Your task to perform on an android device: show emergency info Image 0: 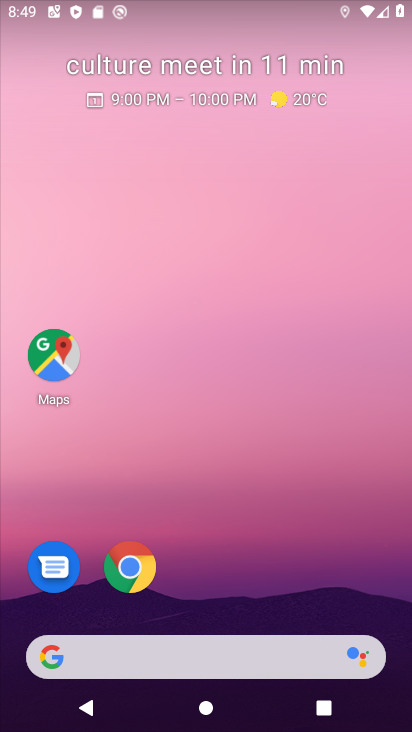
Step 0: drag from (191, 609) to (219, 1)
Your task to perform on an android device: show emergency info Image 1: 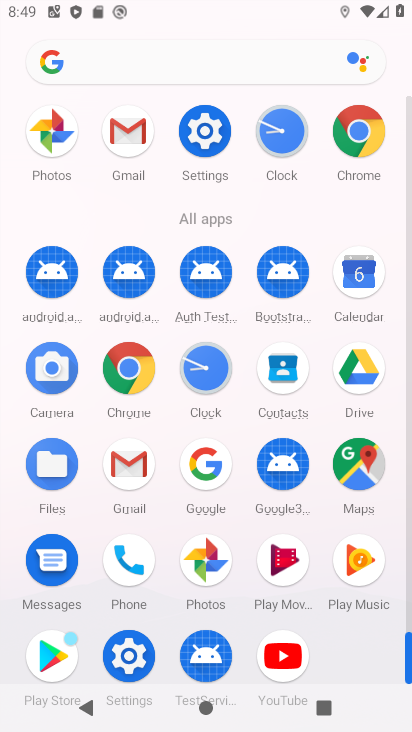
Step 1: click (201, 131)
Your task to perform on an android device: show emergency info Image 2: 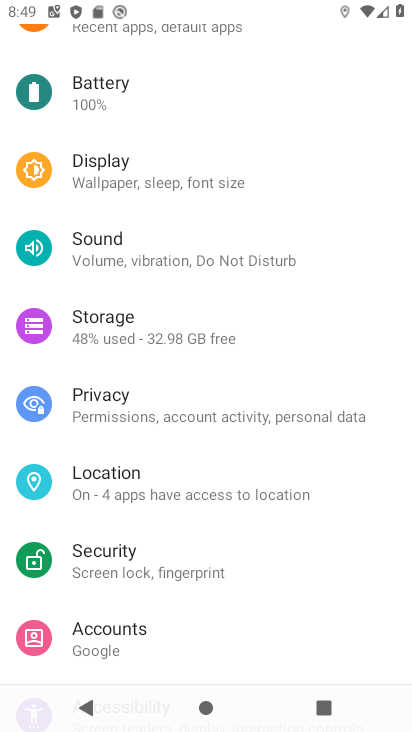
Step 2: drag from (88, 623) to (124, 9)
Your task to perform on an android device: show emergency info Image 3: 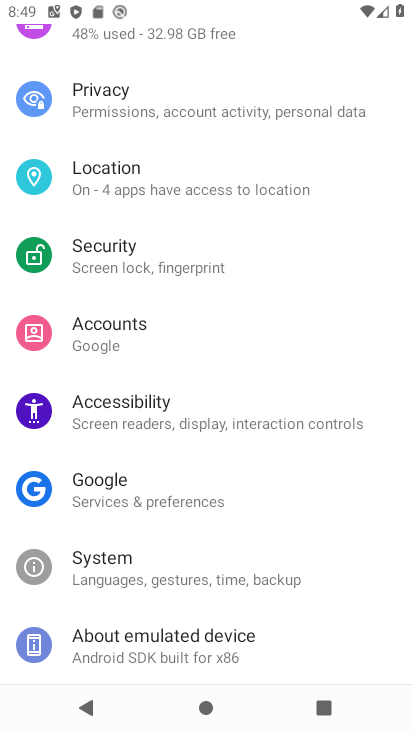
Step 3: drag from (142, 549) to (208, 59)
Your task to perform on an android device: show emergency info Image 4: 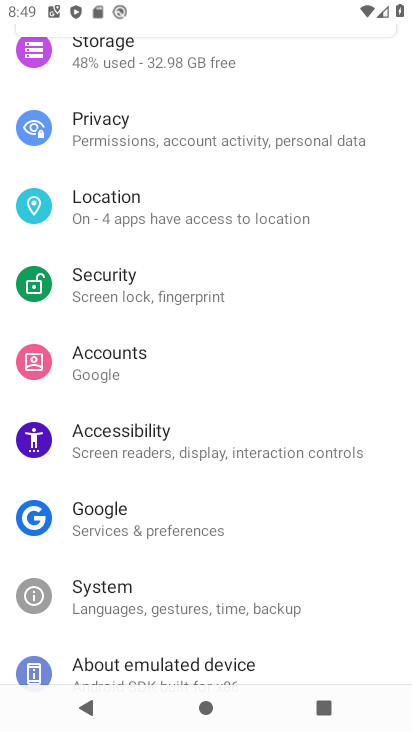
Step 4: click (153, 679)
Your task to perform on an android device: show emergency info Image 5: 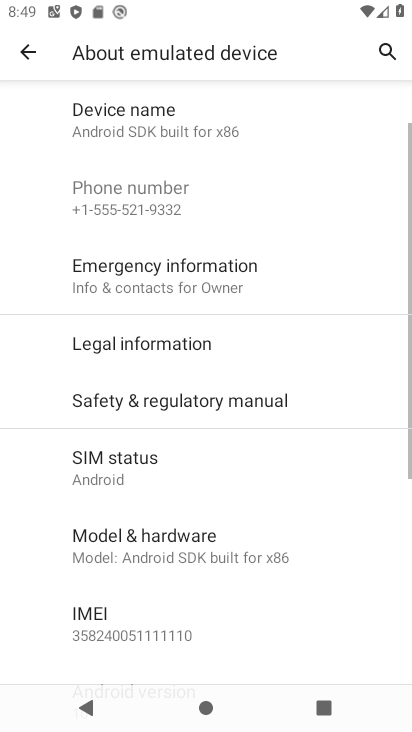
Step 5: click (255, 269)
Your task to perform on an android device: show emergency info Image 6: 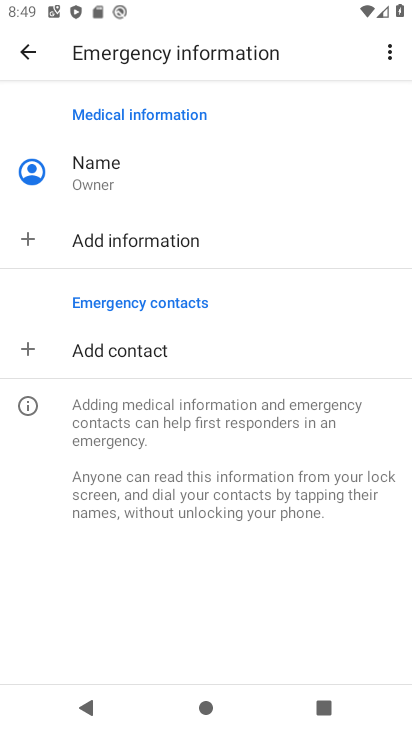
Step 6: task complete